Your task to perform on an android device: Go to Wikipedia Image 0: 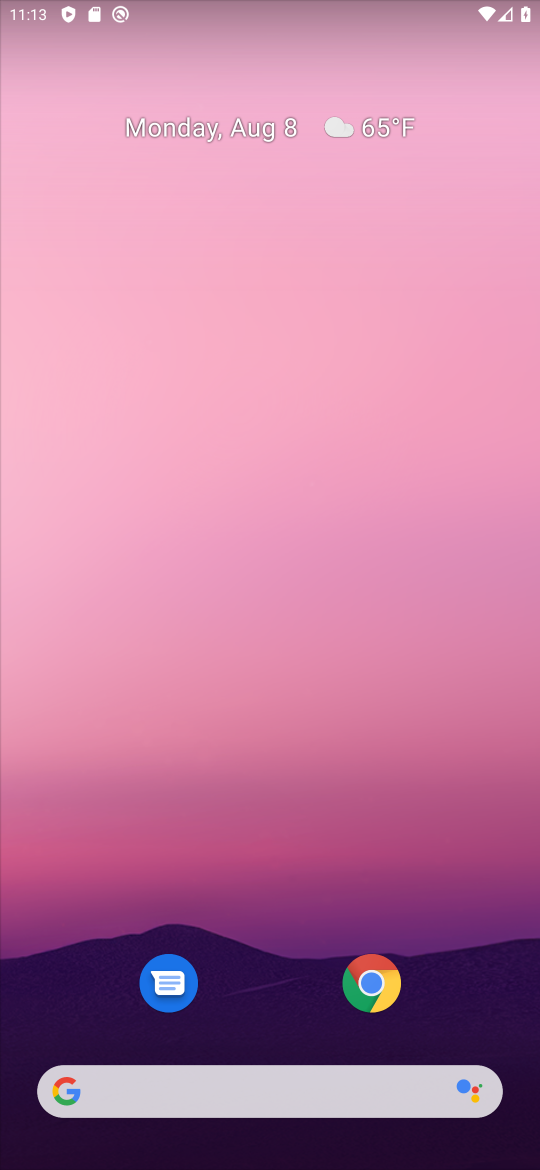
Step 0: drag from (275, 1036) to (269, 189)
Your task to perform on an android device: Go to Wikipedia Image 1: 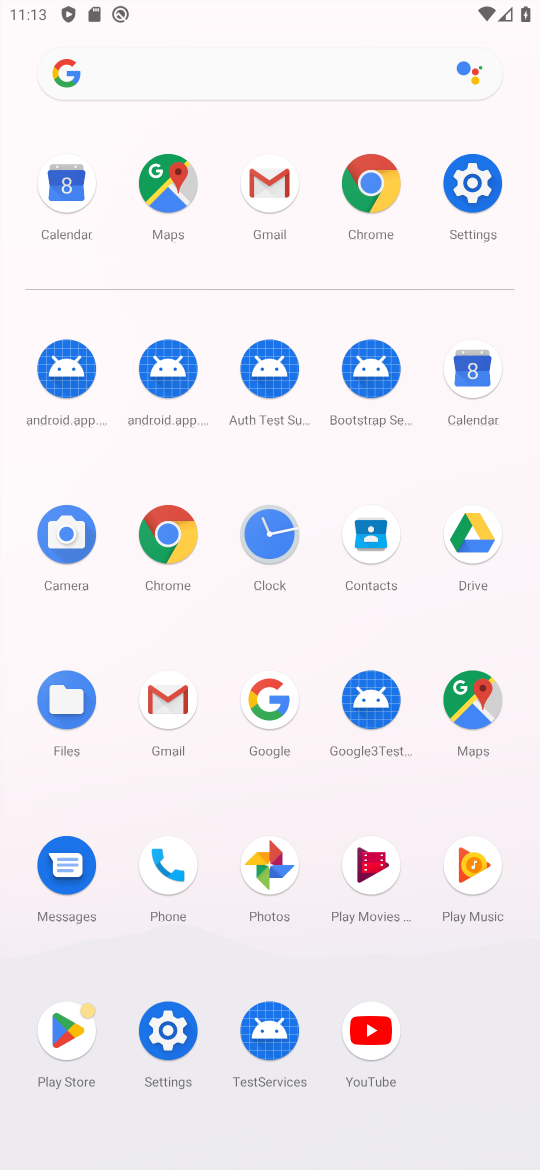
Step 1: click (171, 1020)
Your task to perform on an android device: Go to Wikipedia Image 2: 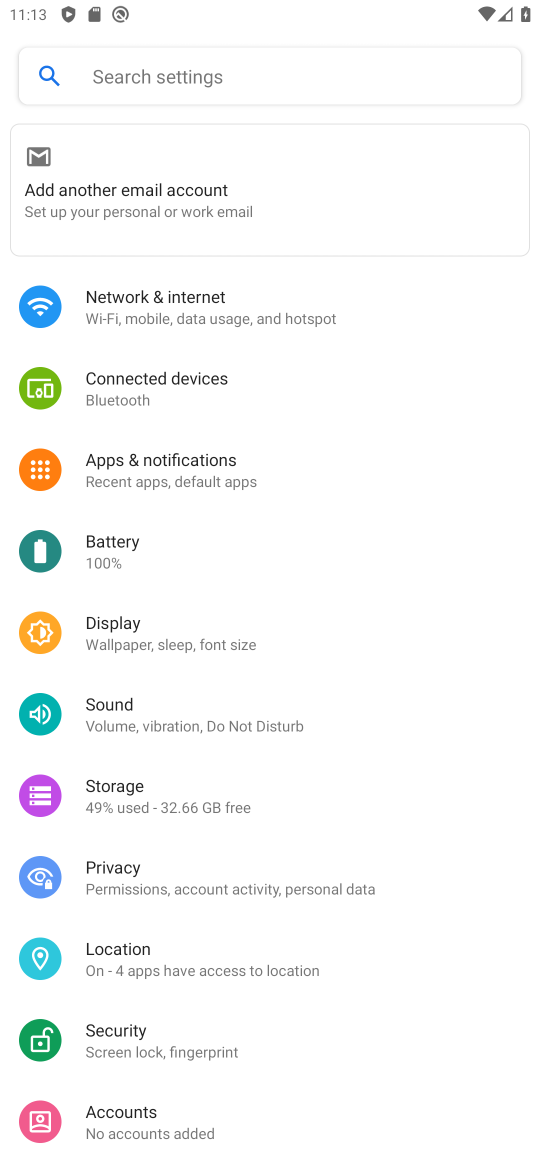
Step 2: press home button
Your task to perform on an android device: Go to Wikipedia Image 3: 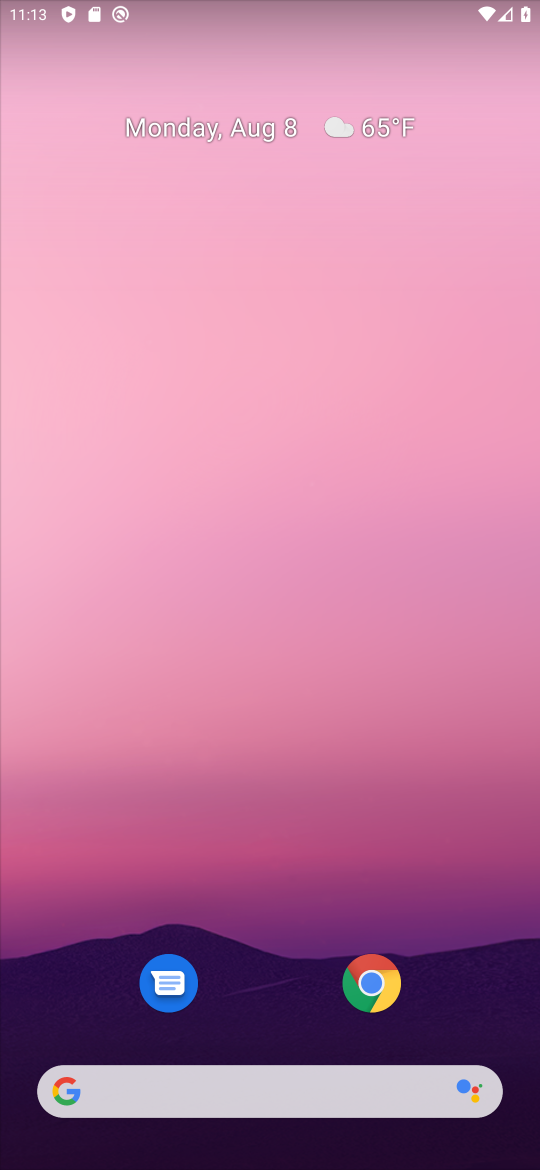
Step 3: click (316, 1096)
Your task to perform on an android device: Go to Wikipedia Image 4: 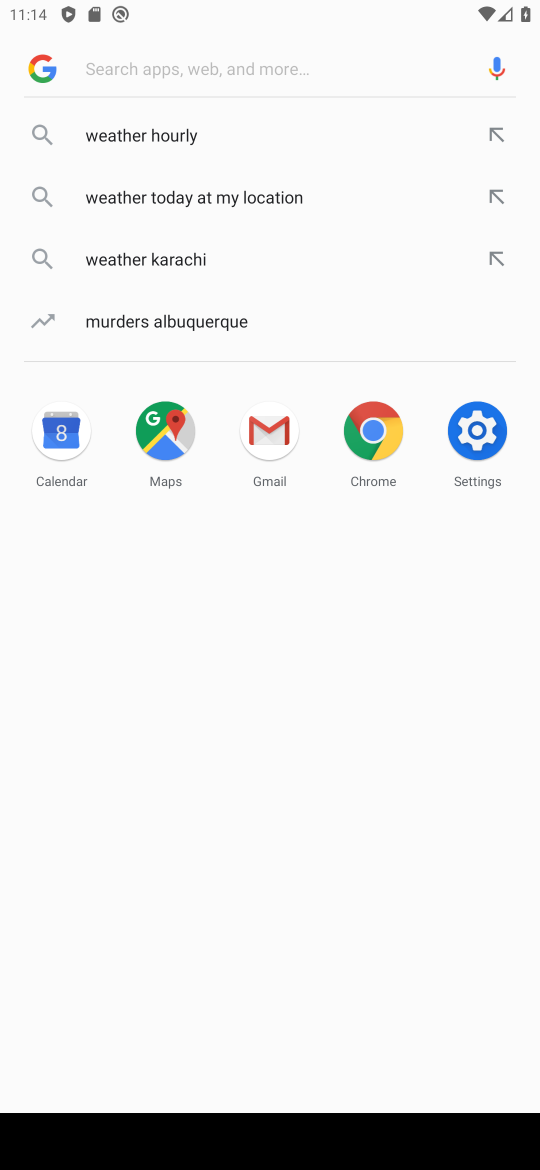
Step 4: type "wikipedia"
Your task to perform on an android device: Go to Wikipedia Image 5: 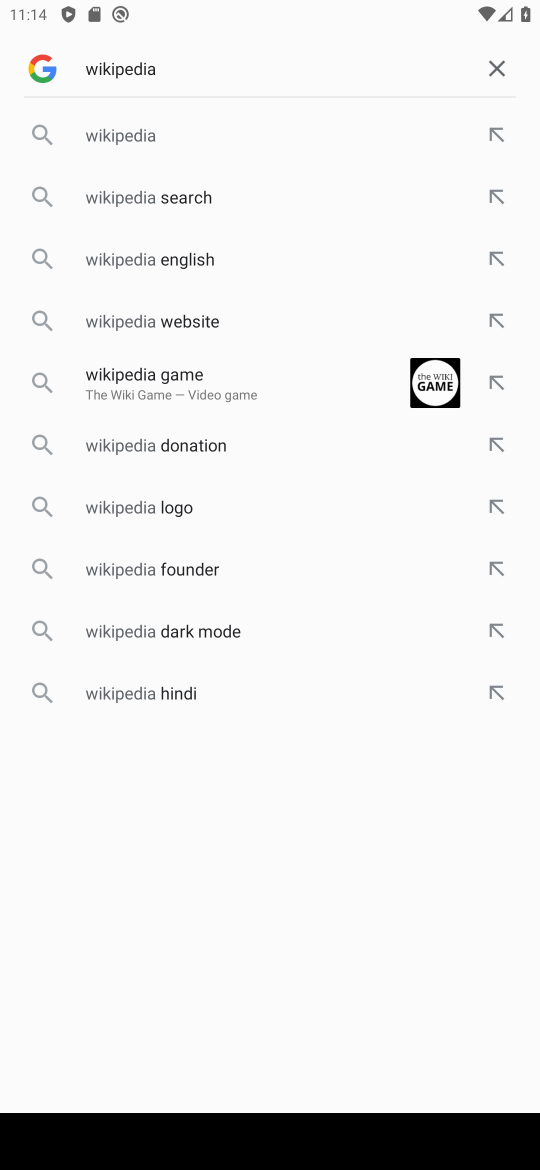
Step 5: click (147, 117)
Your task to perform on an android device: Go to Wikipedia Image 6: 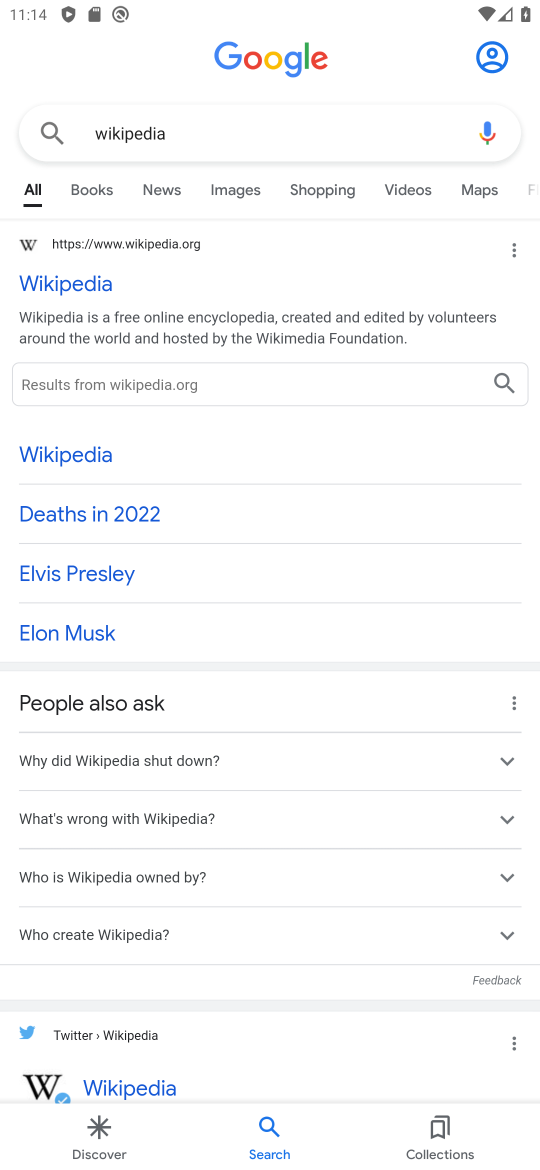
Step 6: click (114, 296)
Your task to perform on an android device: Go to Wikipedia Image 7: 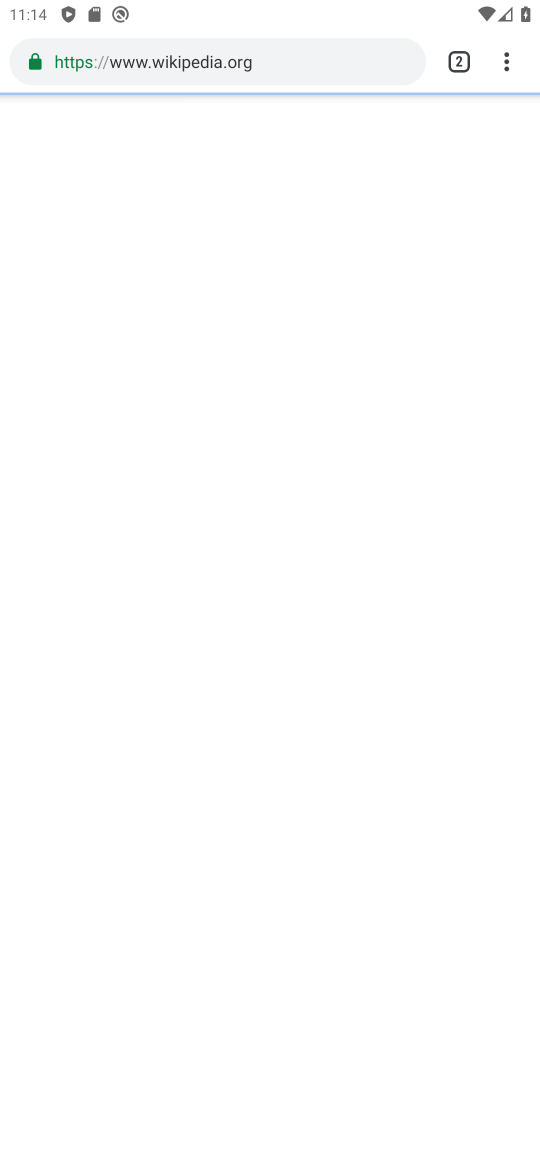
Step 7: task complete